Your task to perform on an android device: Clear the cart on costco.com. Add "energizer triple a" to the cart on costco.com Image 0: 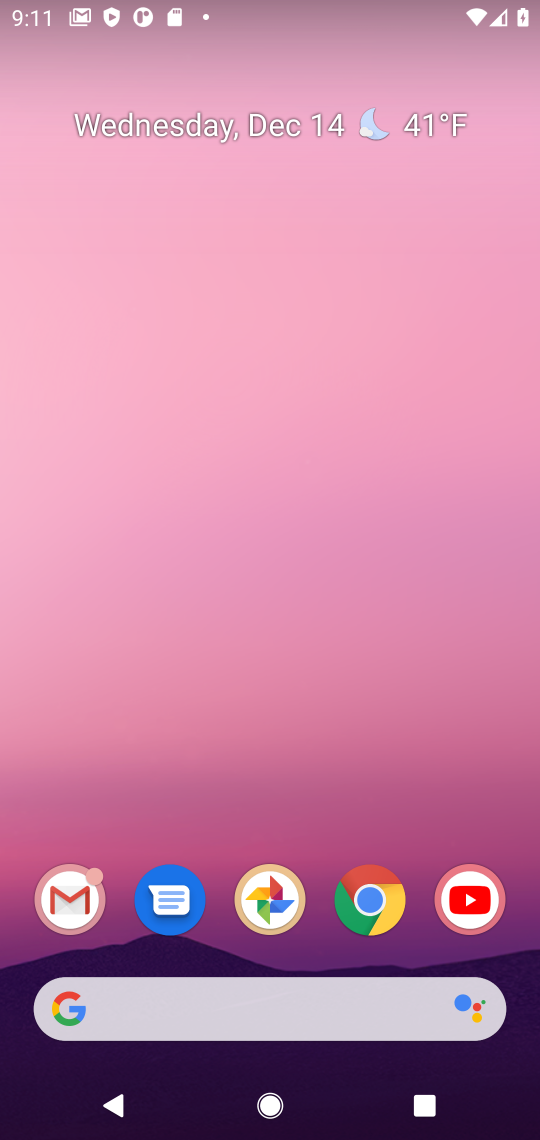
Step 0: click (367, 908)
Your task to perform on an android device: Clear the cart on costco.com. Add "energizer triple a" to the cart on costco.com Image 1: 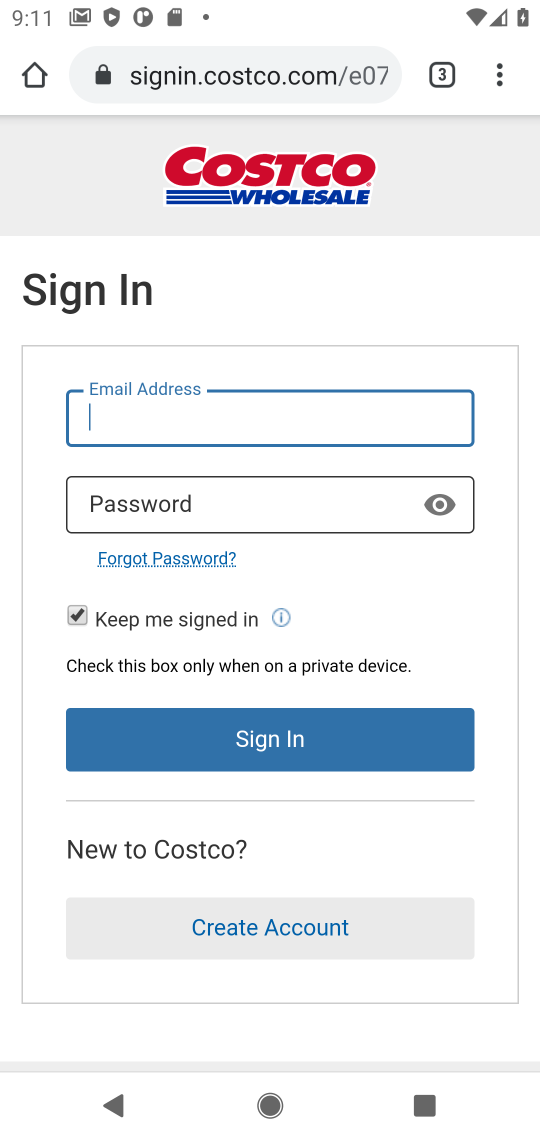
Step 1: press back button
Your task to perform on an android device: Clear the cart on costco.com. Add "energizer triple a" to the cart on costco.com Image 2: 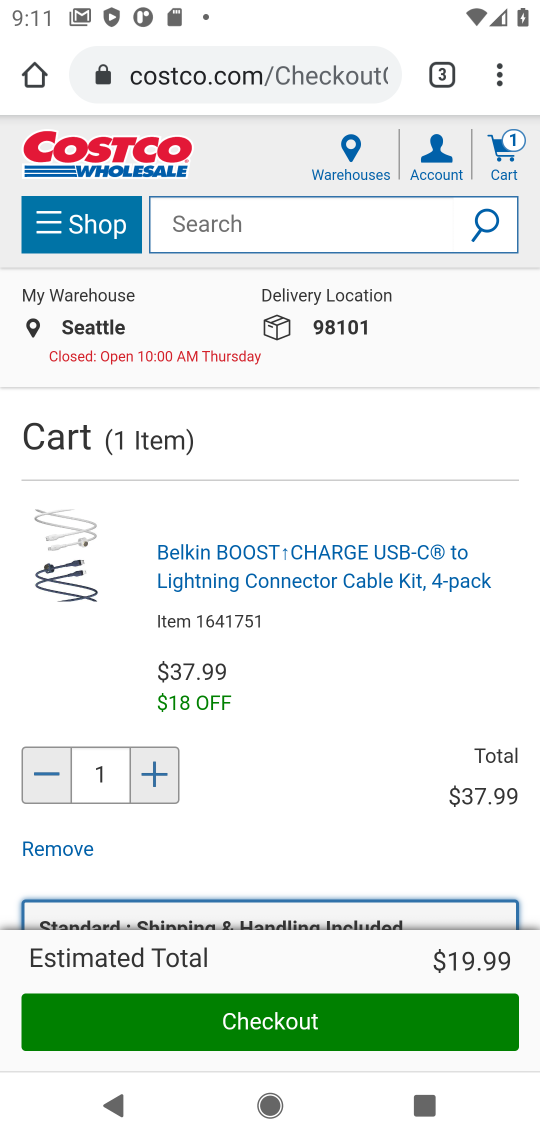
Step 2: drag from (331, 639) to (346, 210)
Your task to perform on an android device: Clear the cart on costco.com. Add "energizer triple a" to the cart on costco.com Image 3: 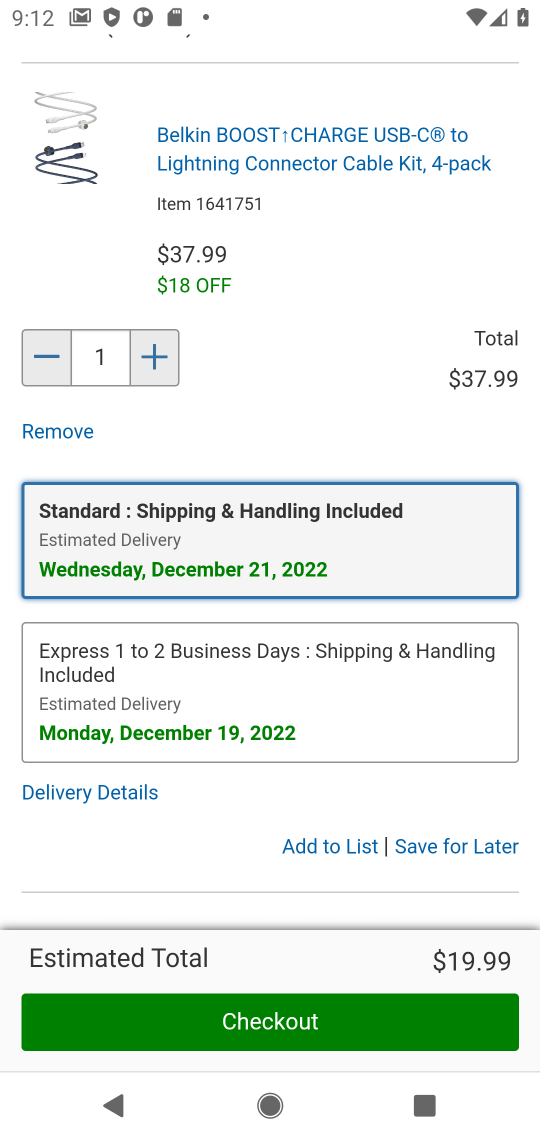
Step 3: click (427, 844)
Your task to perform on an android device: Clear the cart on costco.com. Add "energizer triple a" to the cart on costco.com Image 4: 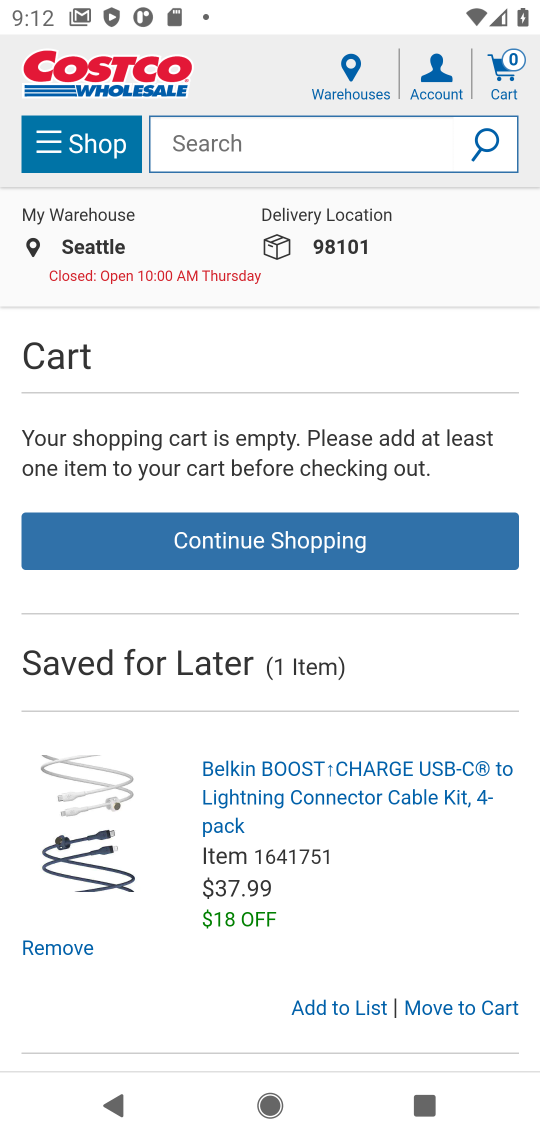
Step 4: click (210, 140)
Your task to perform on an android device: Clear the cart on costco.com. Add "energizer triple a" to the cart on costco.com Image 5: 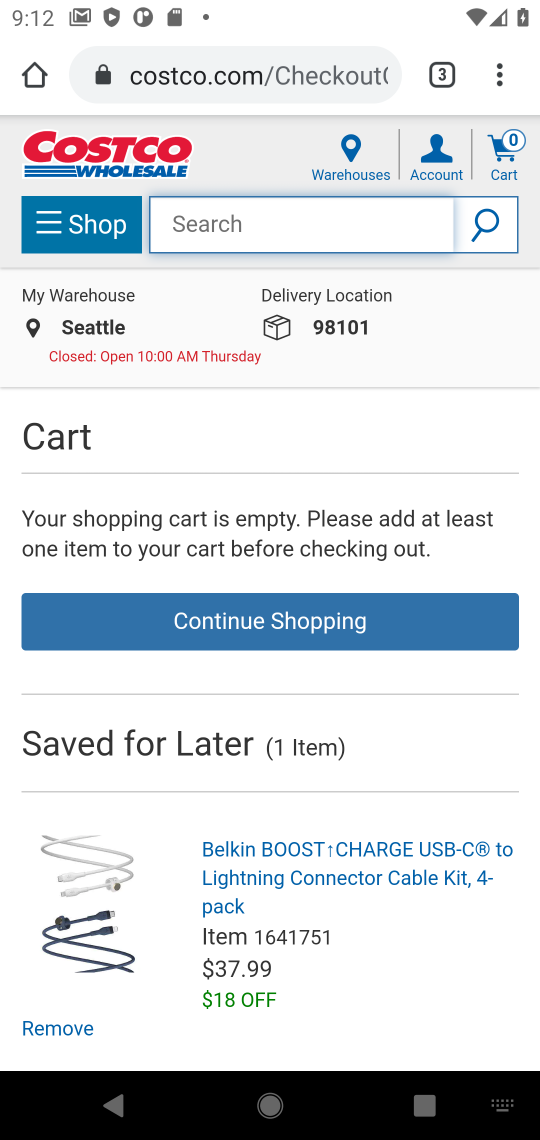
Step 5: type "energizer triple a"
Your task to perform on an android device: Clear the cart on costco.com. Add "energizer triple a" to the cart on costco.com Image 6: 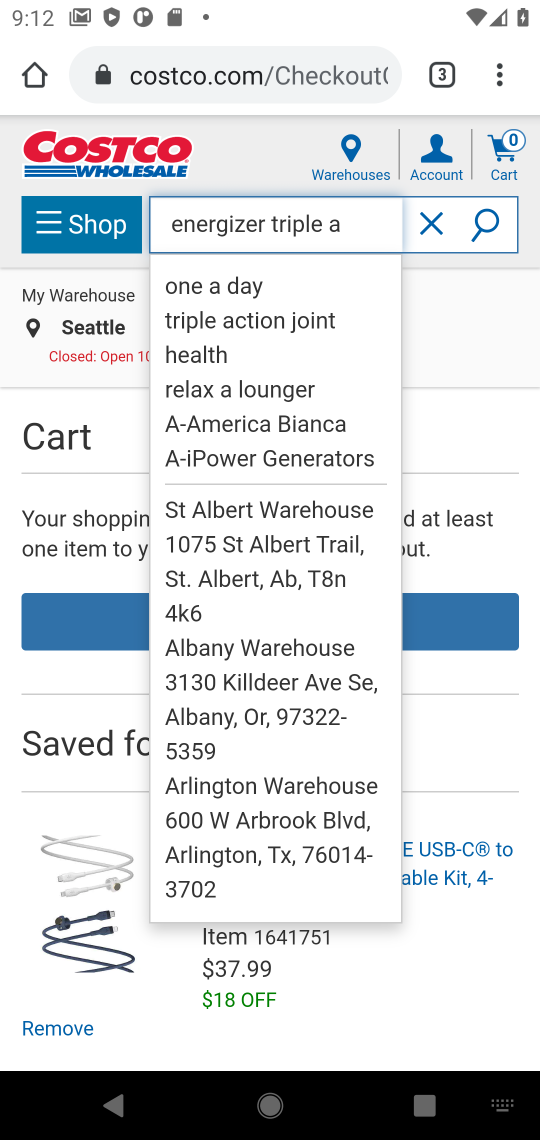
Step 6: click (478, 213)
Your task to perform on an android device: Clear the cart on costco.com. Add "energizer triple a" to the cart on costco.com Image 7: 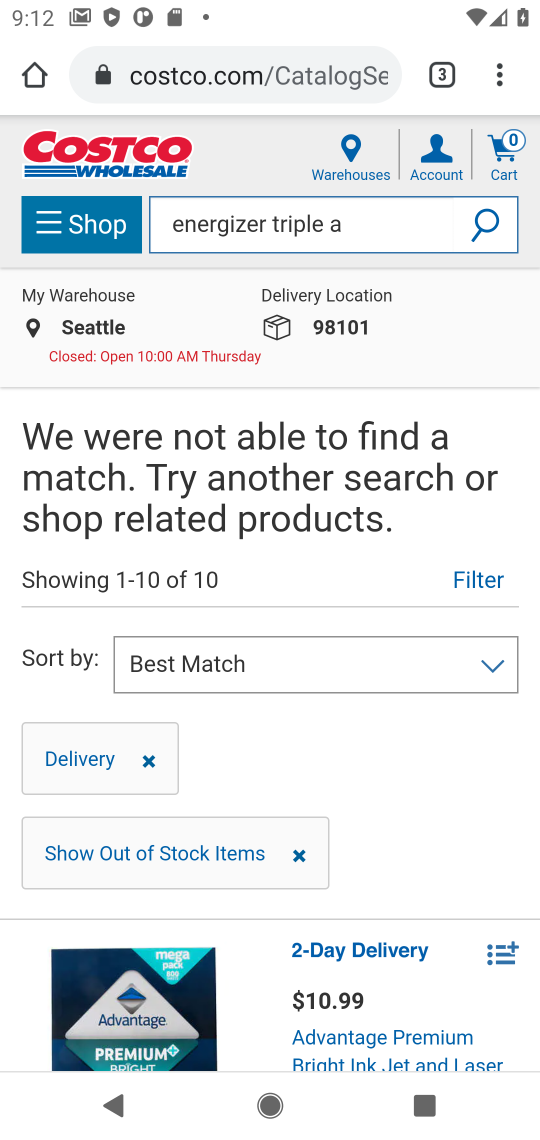
Step 7: task complete